Your task to perform on an android device: Open Chrome and go to settings Image 0: 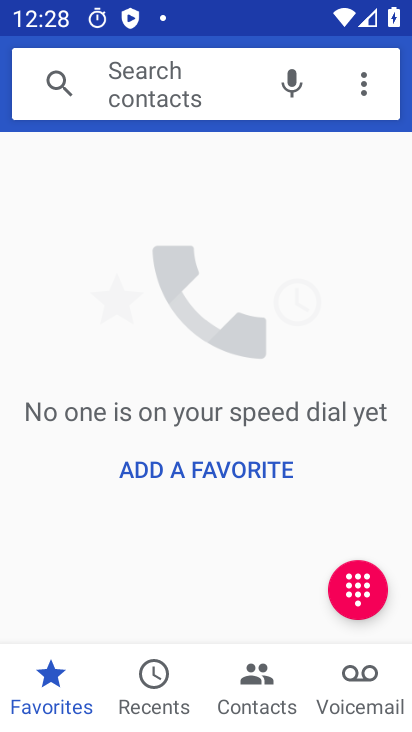
Step 0: press home button
Your task to perform on an android device: Open Chrome and go to settings Image 1: 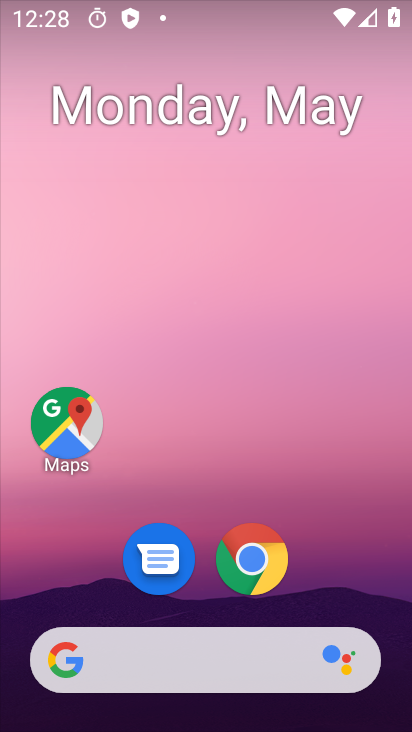
Step 1: drag from (289, 554) to (282, 29)
Your task to perform on an android device: Open Chrome and go to settings Image 2: 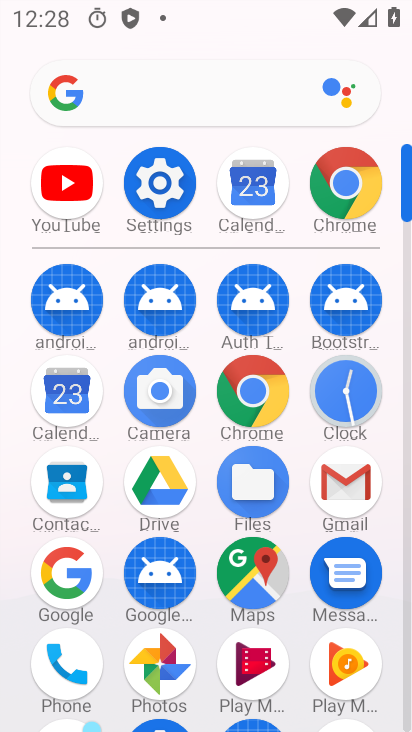
Step 2: click (242, 434)
Your task to perform on an android device: Open Chrome and go to settings Image 3: 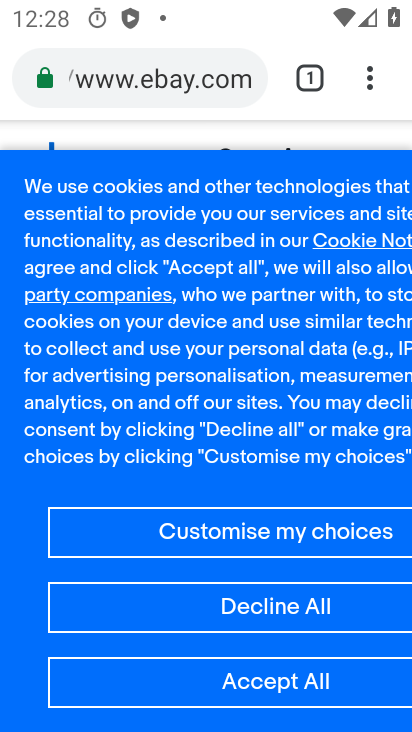
Step 3: task complete